Your task to perform on an android device: Go to calendar. Show me events next week Image 0: 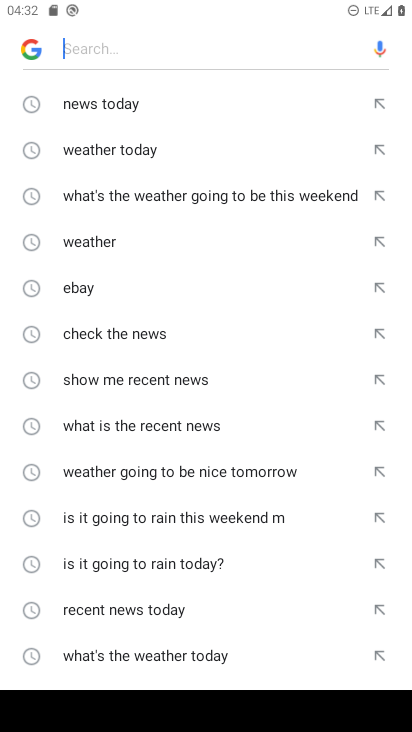
Step 0: press home button
Your task to perform on an android device: Go to calendar. Show me events next week Image 1: 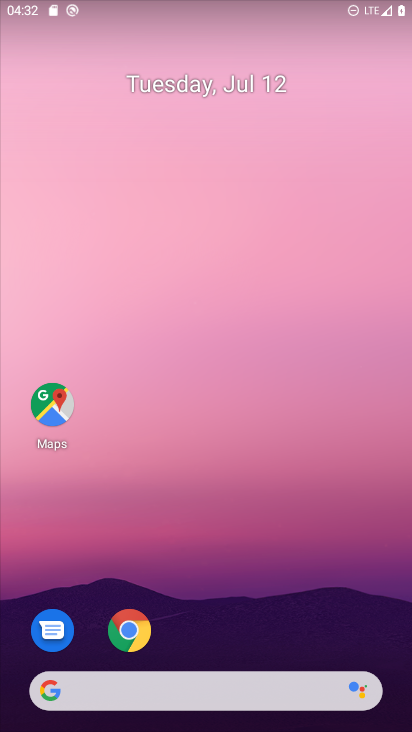
Step 1: drag from (212, 662) to (343, 90)
Your task to perform on an android device: Go to calendar. Show me events next week Image 2: 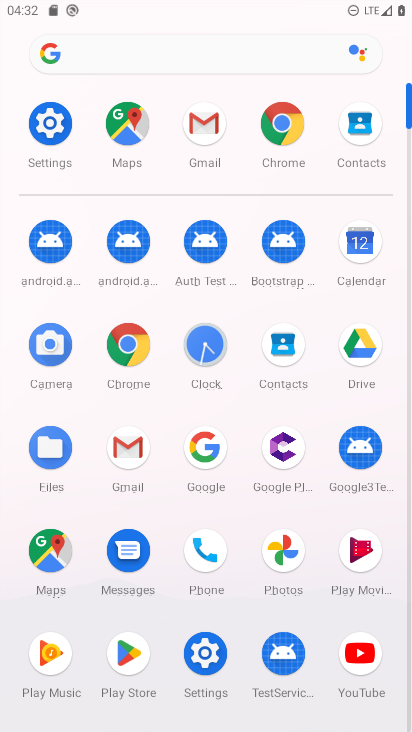
Step 2: click (375, 252)
Your task to perform on an android device: Go to calendar. Show me events next week Image 3: 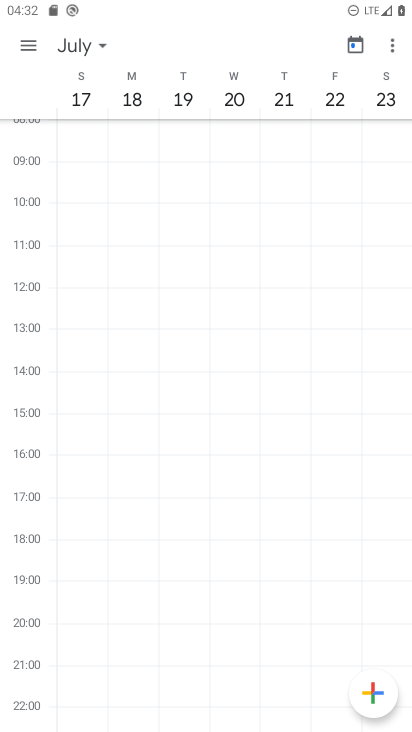
Step 3: click (100, 40)
Your task to perform on an android device: Go to calendar. Show me events next week Image 4: 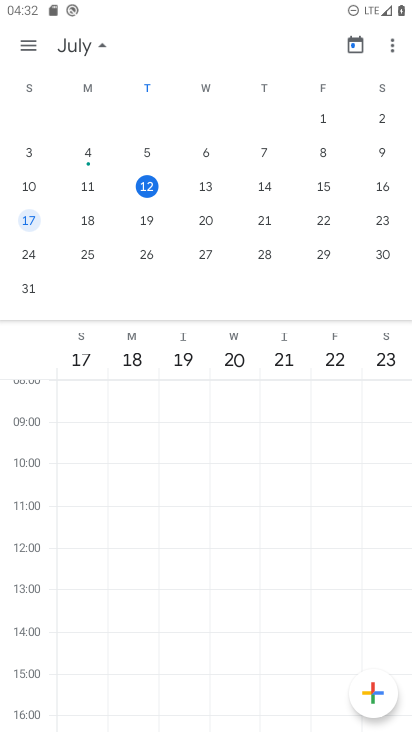
Step 4: click (137, 219)
Your task to perform on an android device: Go to calendar. Show me events next week Image 5: 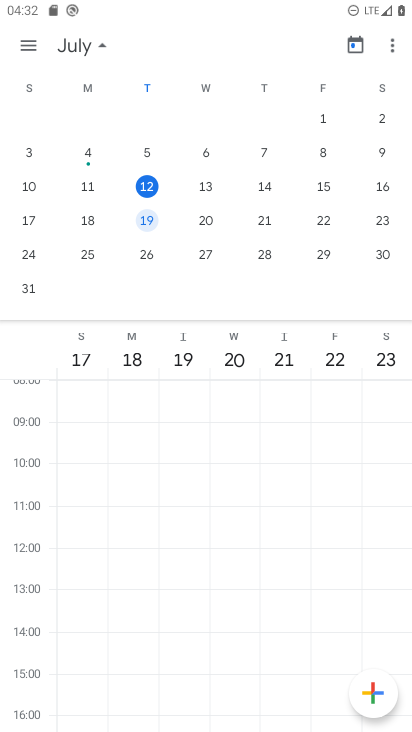
Step 5: task complete